Your task to perform on an android device: turn on notifications settings in the gmail app Image 0: 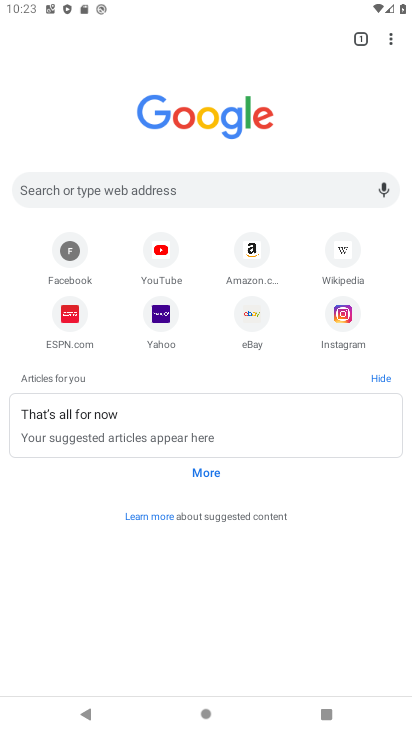
Step 0: press home button
Your task to perform on an android device: turn on notifications settings in the gmail app Image 1: 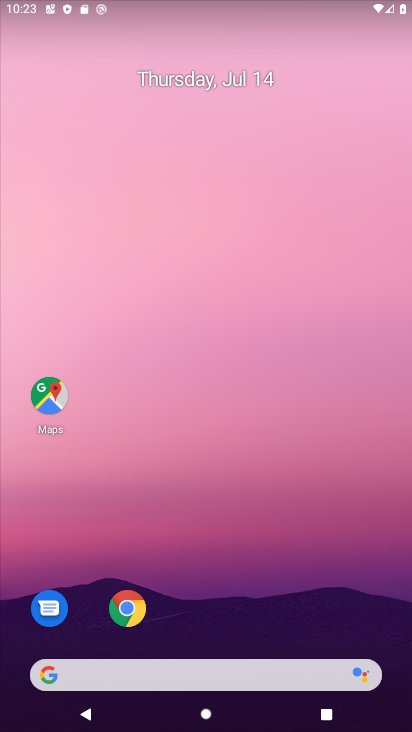
Step 1: drag from (219, 718) to (207, 190)
Your task to perform on an android device: turn on notifications settings in the gmail app Image 2: 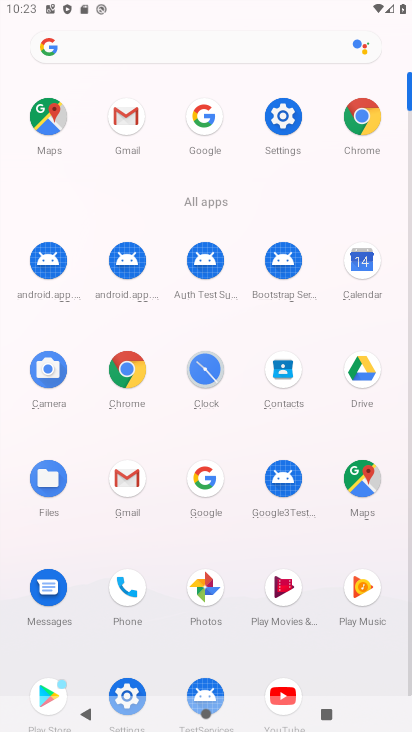
Step 2: click (122, 475)
Your task to perform on an android device: turn on notifications settings in the gmail app Image 3: 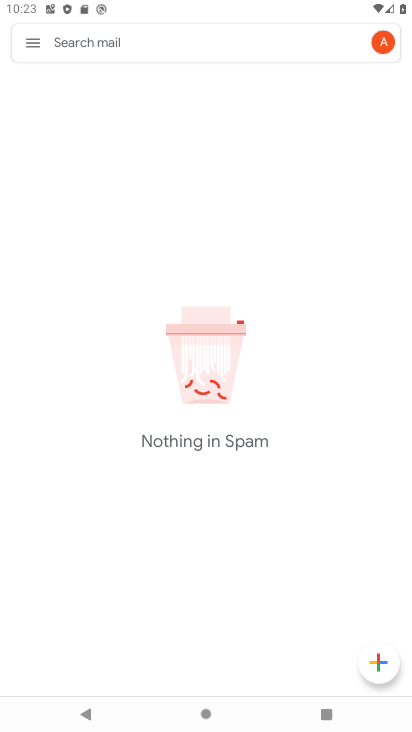
Step 3: click (31, 45)
Your task to perform on an android device: turn on notifications settings in the gmail app Image 4: 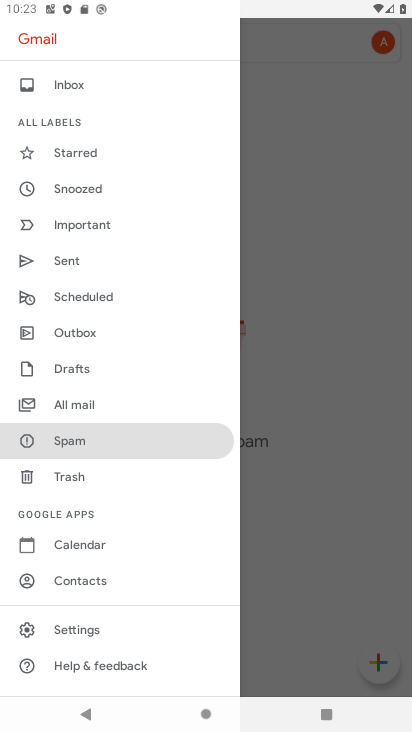
Step 4: click (83, 628)
Your task to perform on an android device: turn on notifications settings in the gmail app Image 5: 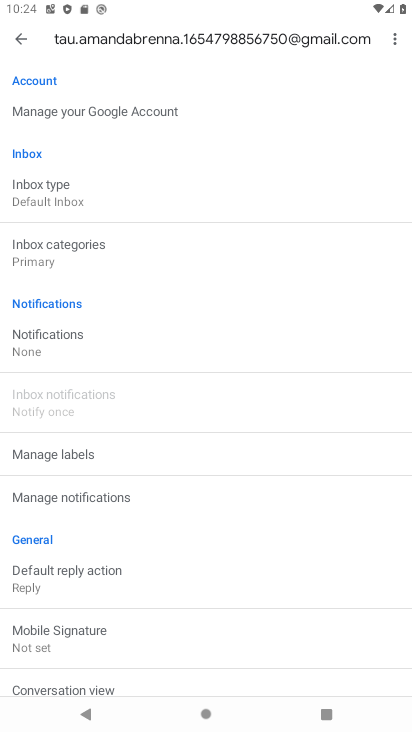
Step 5: click (40, 340)
Your task to perform on an android device: turn on notifications settings in the gmail app Image 6: 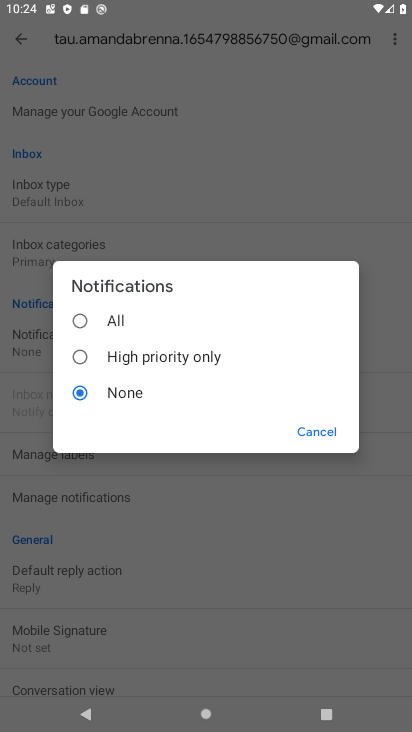
Step 6: click (75, 314)
Your task to perform on an android device: turn on notifications settings in the gmail app Image 7: 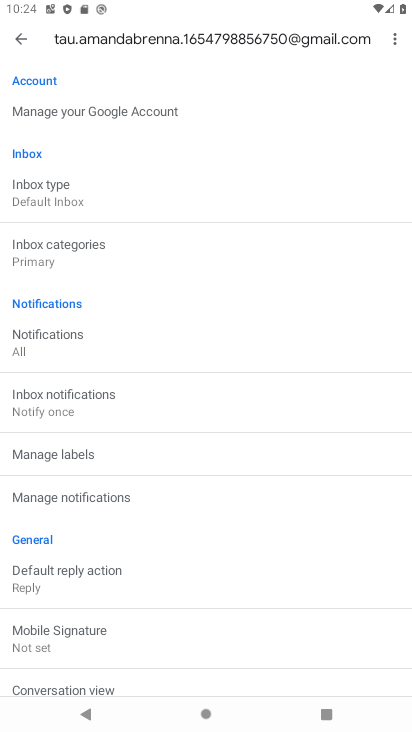
Step 7: task complete